Your task to perform on an android device: change the clock style Image 0: 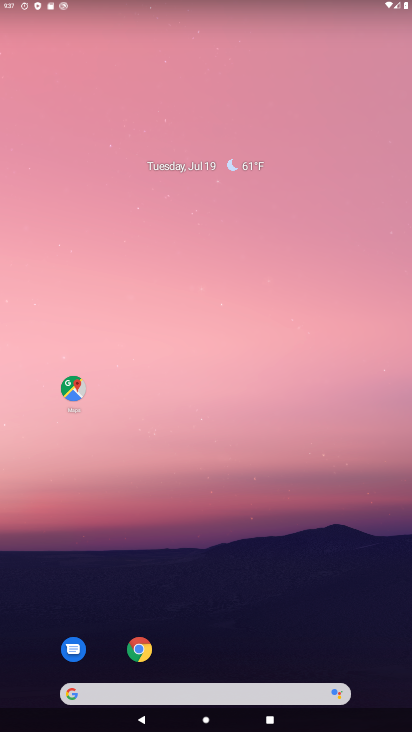
Step 0: drag from (353, 557) to (304, 221)
Your task to perform on an android device: change the clock style Image 1: 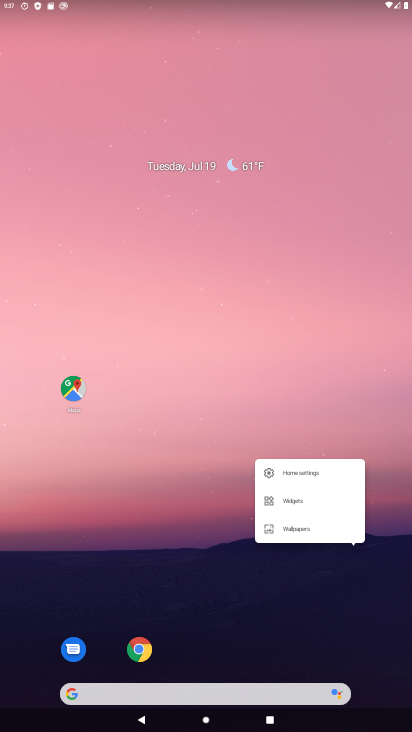
Step 1: click (319, 324)
Your task to perform on an android device: change the clock style Image 2: 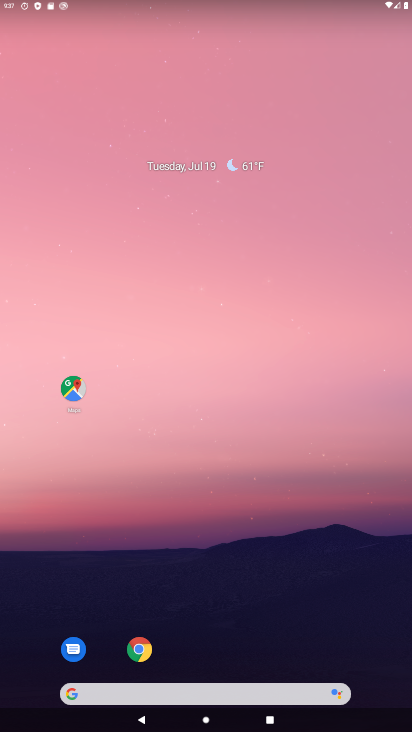
Step 2: drag from (348, 586) to (270, 197)
Your task to perform on an android device: change the clock style Image 3: 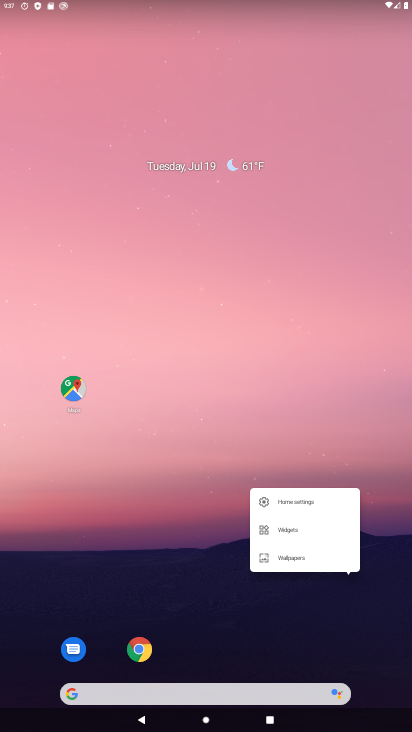
Step 3: click (146, 504)
Your task to perform on an android device: change the clock style Image 4: 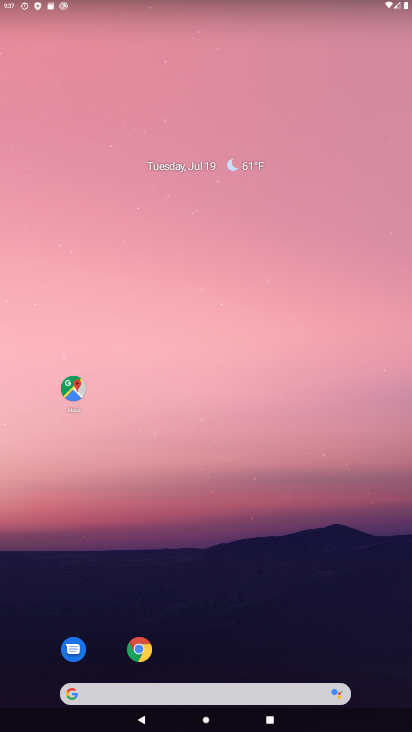
Step 4: click (225, 599)
Your task to perform on an android device: change the clock style Image 5: 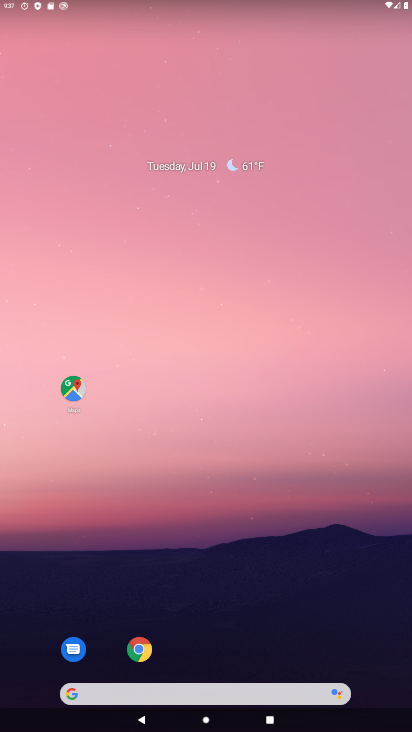
Step 5: drag from (220, 595) to (280, 298)
Your task to perform on an android device: change the clock style Image 6: 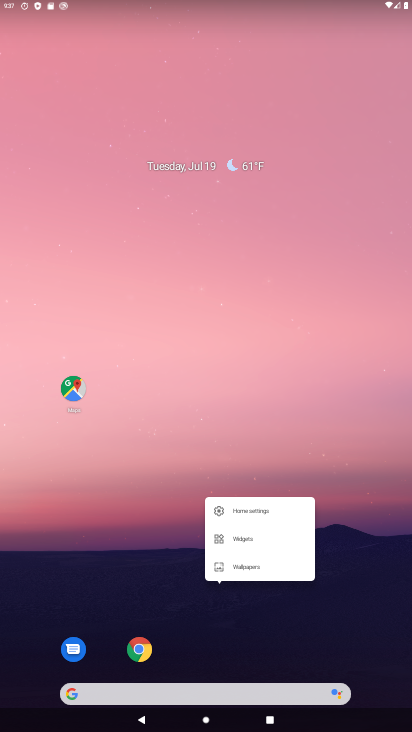
Step 6: click (313, 369)
Your task to perform on an android device: change the clock style Image 7: 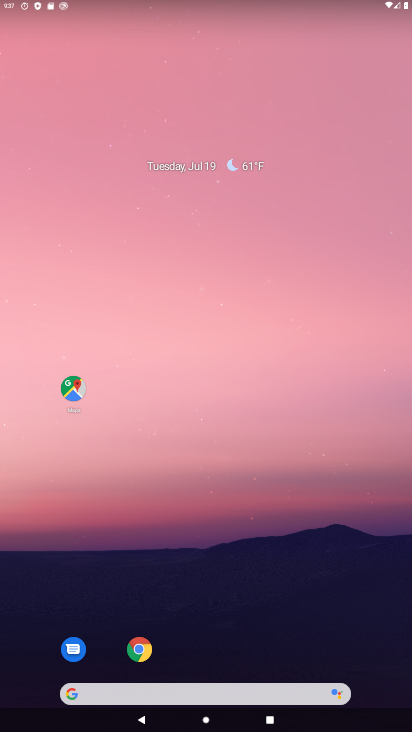
Step 7: drag from (235, 578) to (272, 275)
Your task to perform on an android device: change the clock style Image 8: 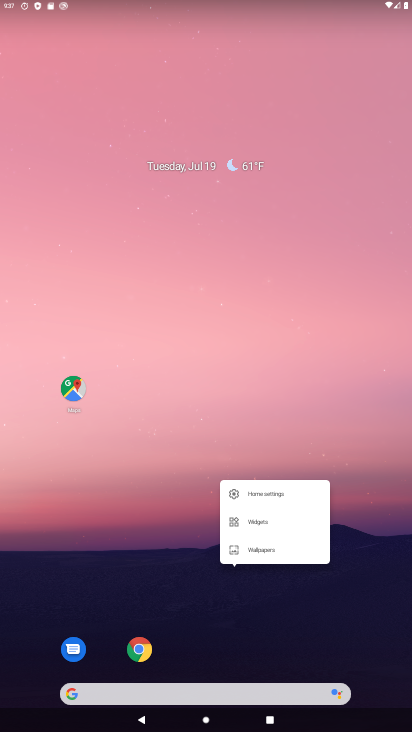
Step 8: click (174, 491)
Your task to perform on an android device: change the clock style Image 9: 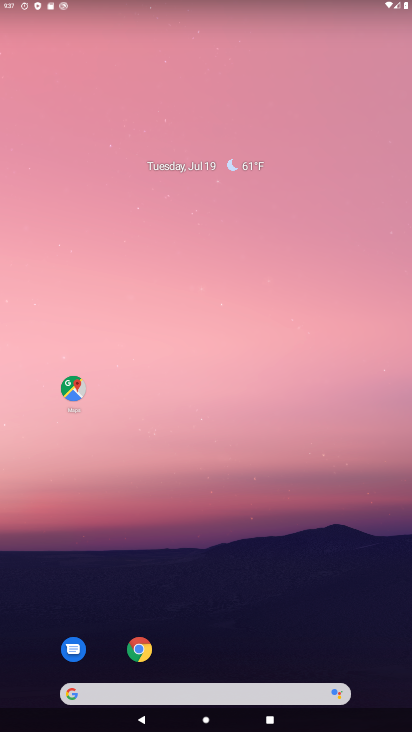
Step 9: drag from (174, 491) to (218, 7)
Your task to perform on an android device: change the clock style Image 10: 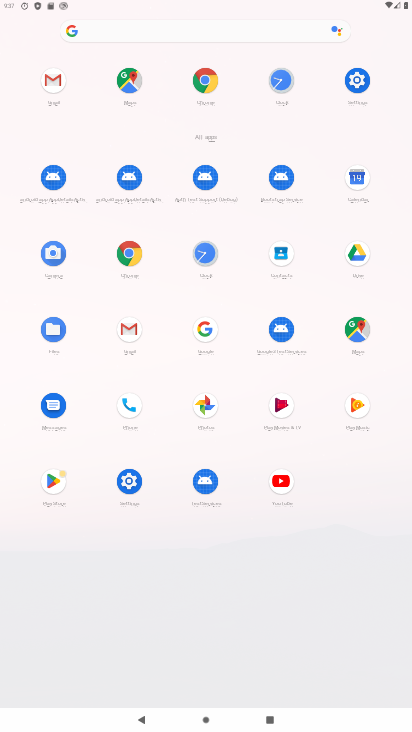
Step 10: click (201, 254)
Your task to perform on an android device: change the clock style Image 11: 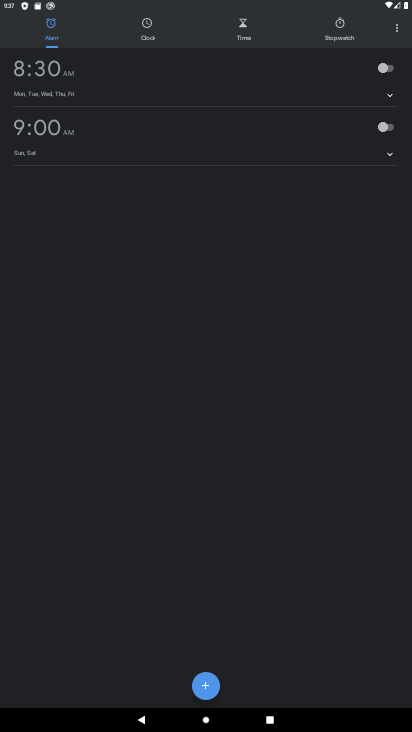
Step 11: click (406, 29)
Your task to perform on an android device: change the clock style Image 12: 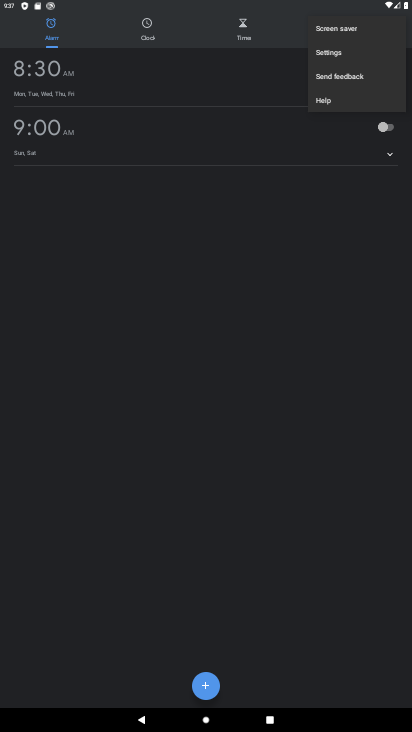
Step 12: click (342, 52)
Your task to perform on an android device: change the clock style Image 13: 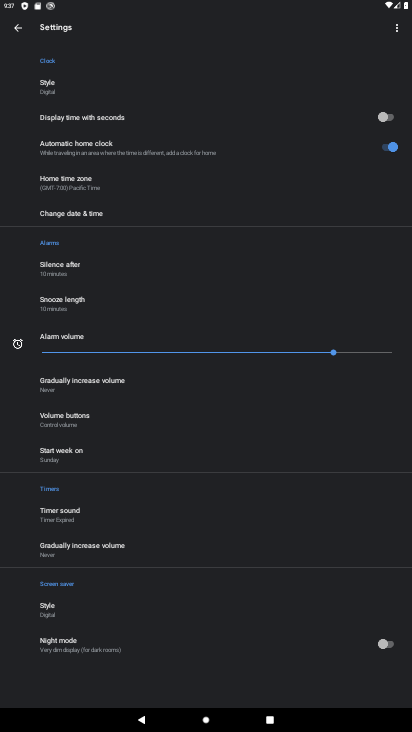
Step 13: click (189, 83)
Your task to perform on an android device: change the clock style Image 14: 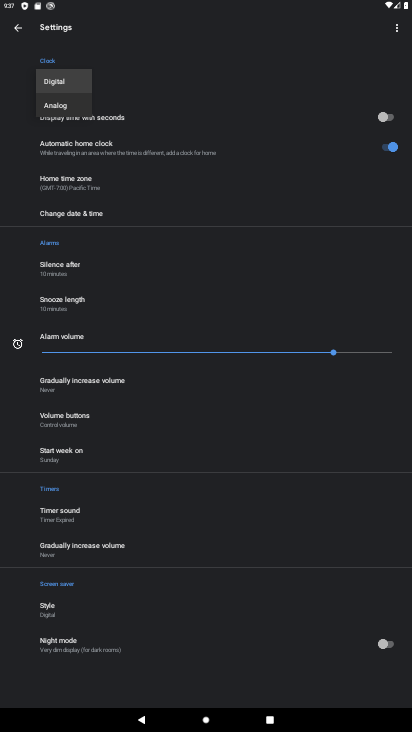
Step 14: click (60, 107)
Your task to perform on an android device: change the clock style Image 15: 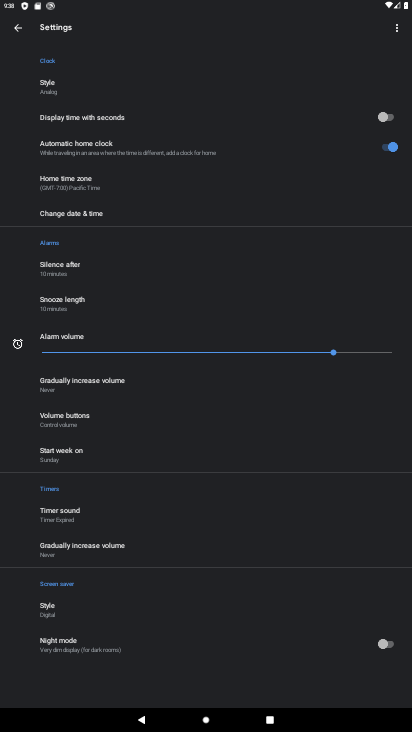
Step 15: task complete